Your task to perform on an android device: refresh tabs in the chrome app Image 0: 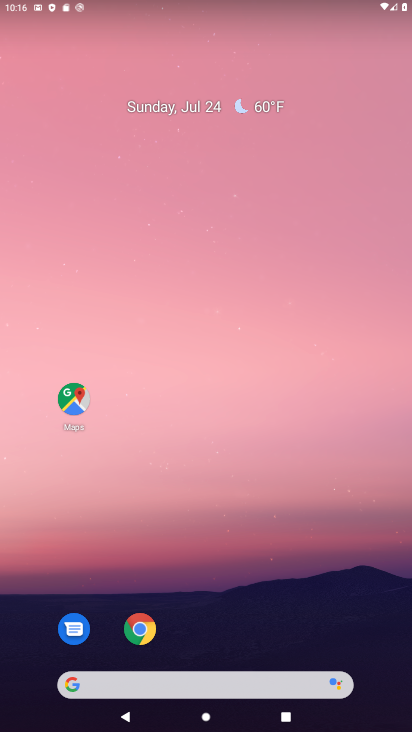
Step 0: drag from (199, 471) to (168, 201)
Your task to perform on an android device: refresh tabs in the chrome app Image 1: 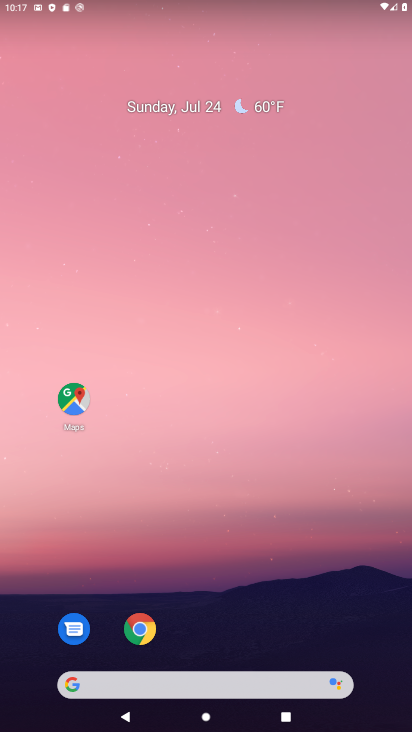
Step 1: drag from (305, 489) to (334, 230)
Your task to perform on an android device: refresh tabs in the chrome app Image 2: 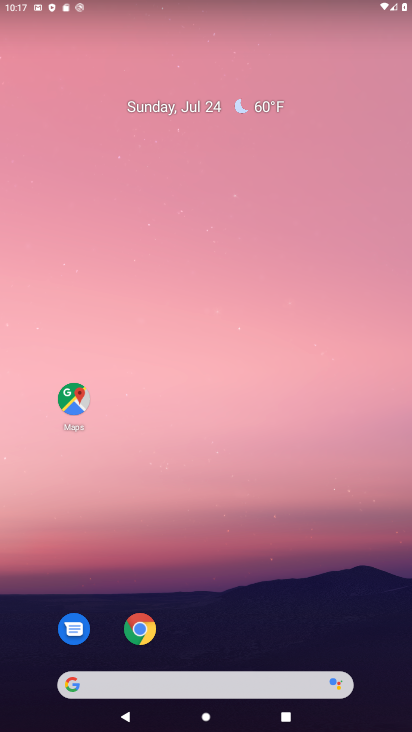
Step 2: drag from (300, 446) to (107, 11)
Your task to perform on an android device: refresh tabs in the chrome app Image 3: 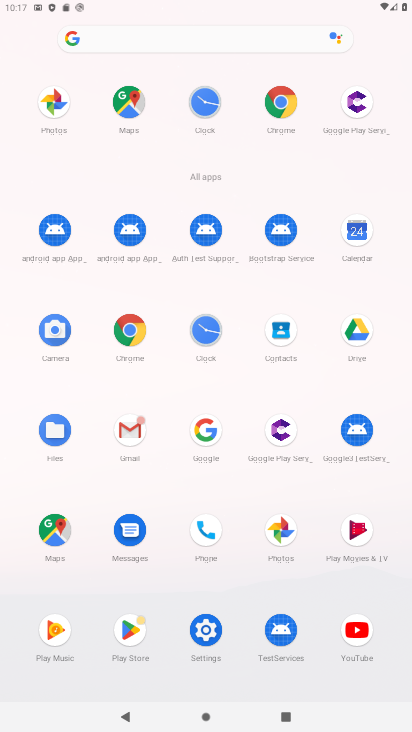
Step 3: drag from (234, 583) to (178, 112)
Your task to perform on an android device: refresh tabs in the chrome app Image 4: 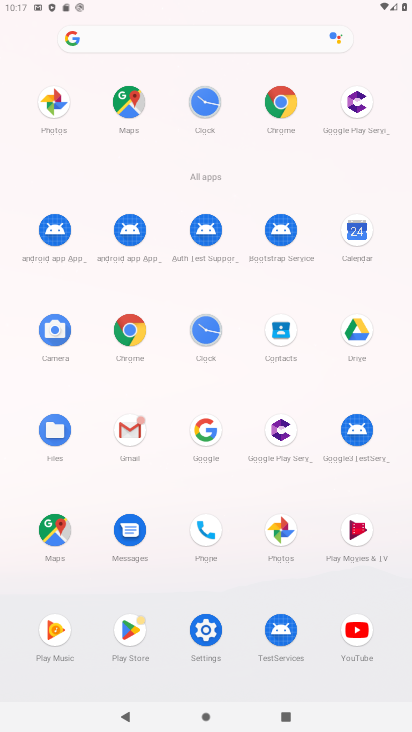
Step 4: click (280, 99)
Your task to perform on an android device: refresh tabs in the chrome app Image 5: 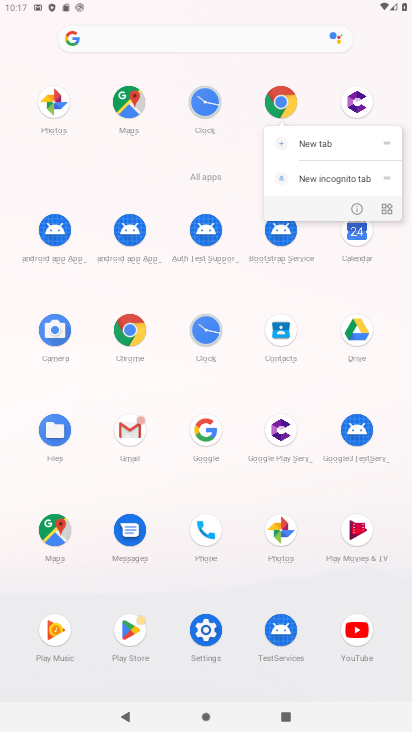
Step 5: click (281, 115)
Your task to perform on an android device: refresh tabs in the chrome app Image 6: 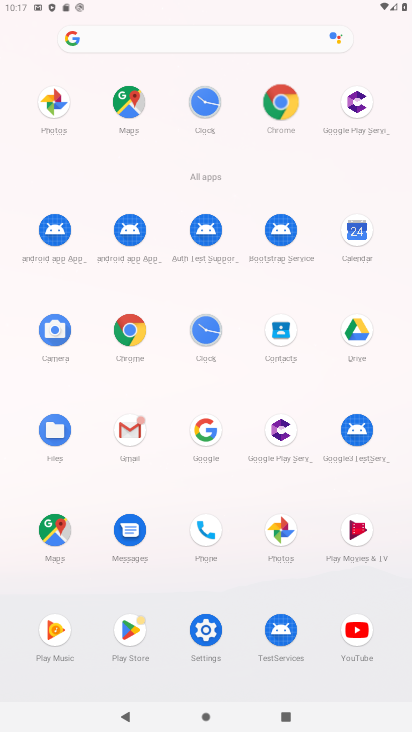
Step 6: click (286, 112)
Your task to perform on an android device: refresh tabs in the chrome app Image 7: 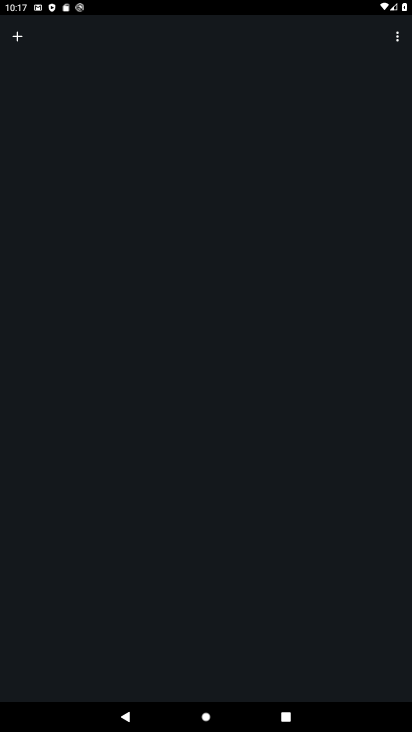
Step 7: click (127, 287)
Your task to perform on an android device: refresh tabs in the chrome app Image 8: 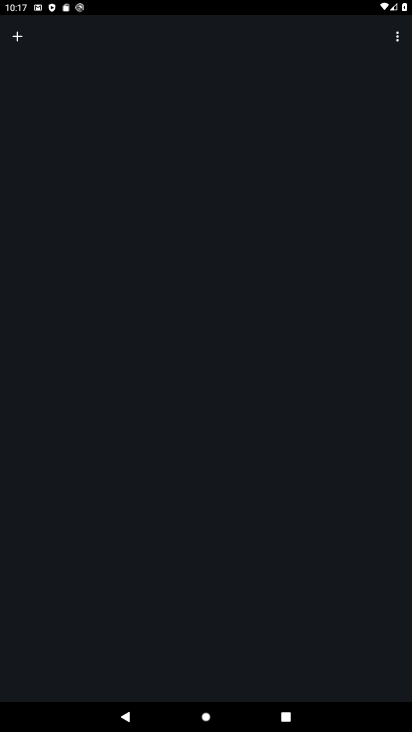
Step 8: click (141, 272)
Your task to perform on an android device: refresh tabs in the chrome app Image 9: 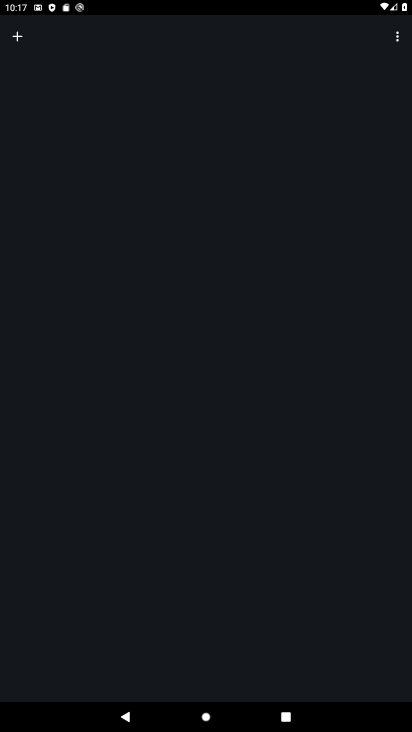
Step 9: click (151, 269)
Your task to perform on an android device: refresh tabs in the chrome app Image 10: 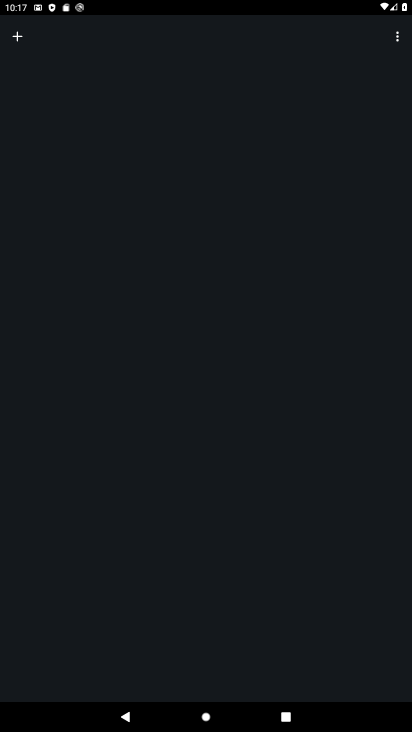
Step 10: press back button
Your task to perform on an android device: refresh tabs in the chrome app Image 11: 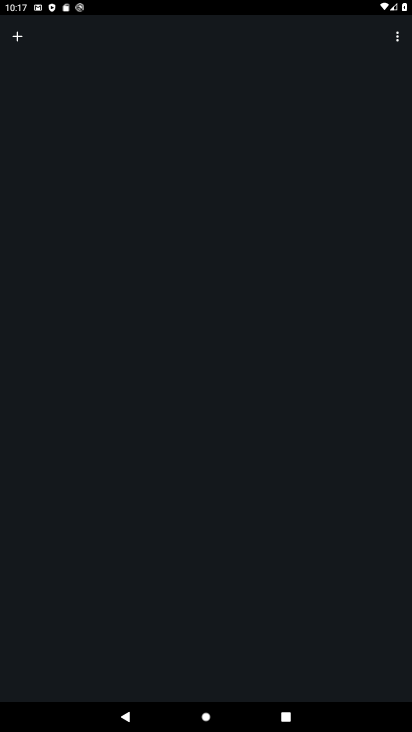
Step 11: press back button
Your task to perform on an android device: refresh tabs in the chrome app Image 12: 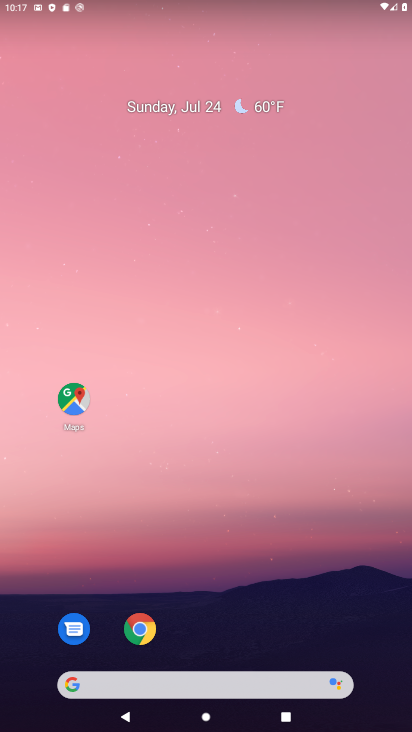
Step 12: drag from (264, 651) to (218, 192)
Your task to perform on an android device: refresh tabs in the chrome app Image 13: 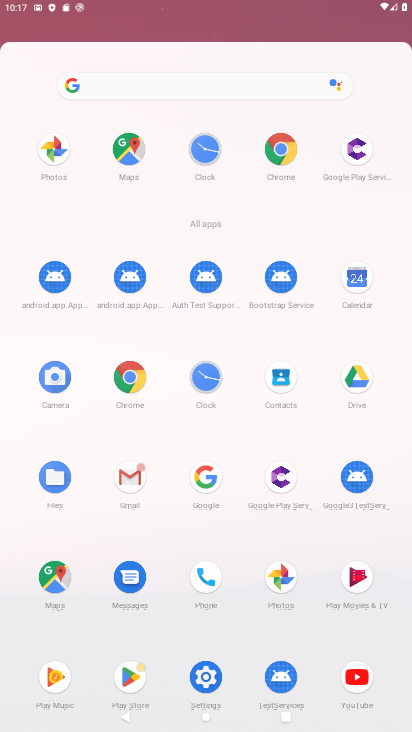
Step 13: drag from (312, 444) to (304, 7)
Your task to perform on an android device: refresh tabs in the chrome app Image 14: 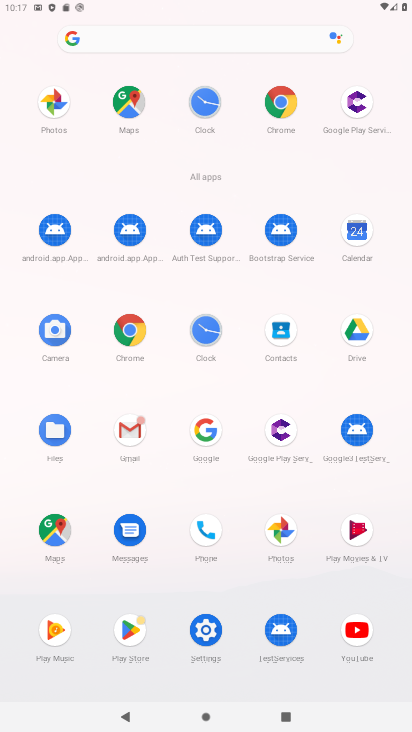
Step 14: click (265, 103)
Your task to perform on an android device: refresh tabs in the chrome app Image 15: 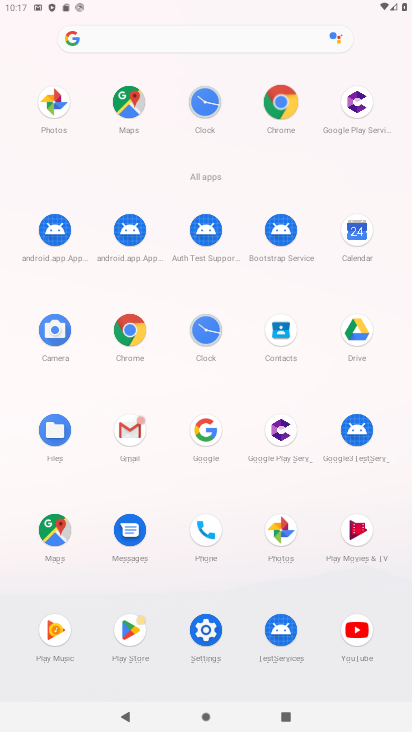
Step 15: click (266, 102)
Your task to perform on an android device: refresh tabs in the chrome app Image 16: 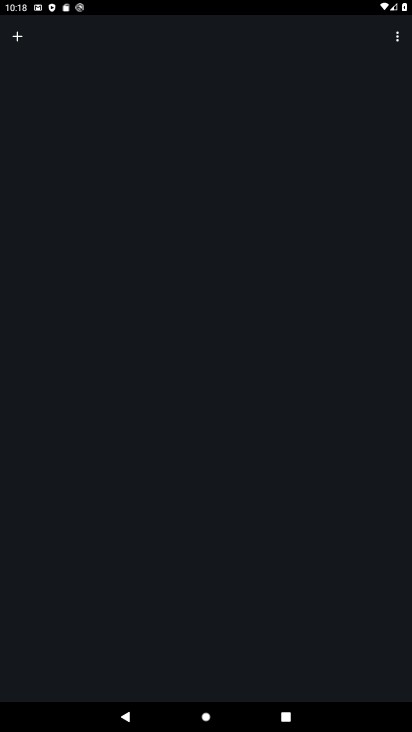
Step 16: drag from (272, 479) to (206, 140)
Your task to perform on an android device: refresh tabs in the chrome app Image 17: 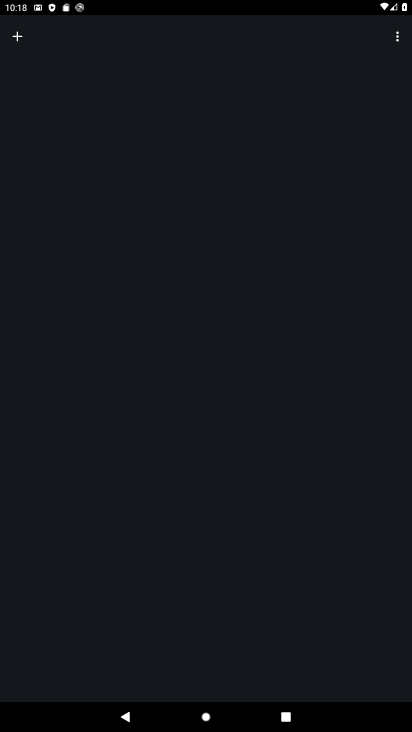
Step 17: click (9, 41)
Your task to perform on an android device: refresh tabs in the chrome app Image 18: 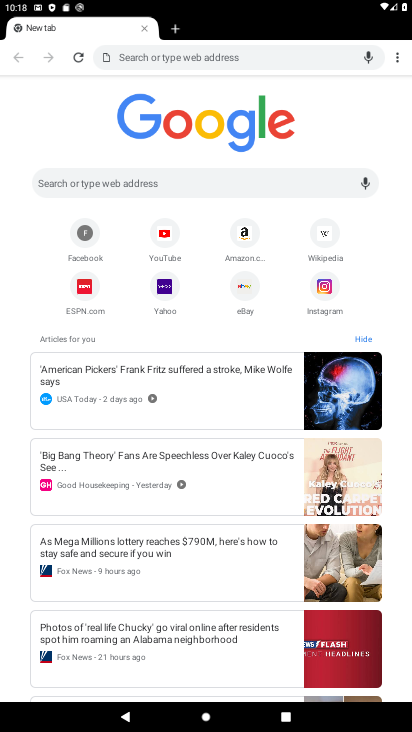
Step 18: click (402, 60)
Your task to perform on an android device: refresh tabs in the chrome app Image 19: 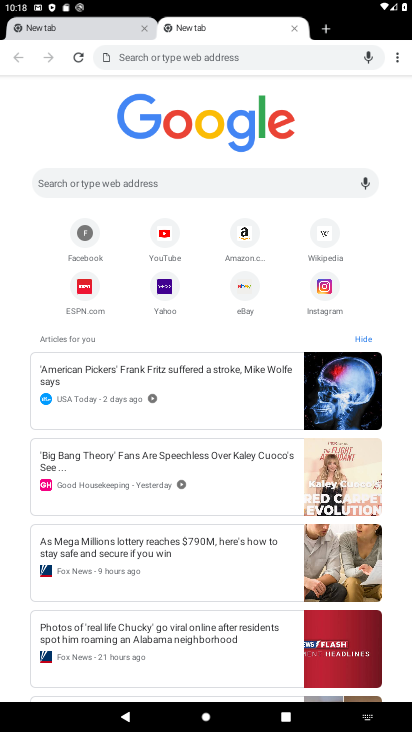
Step 19: drag from (395, 57) to (273, 53)
Your task to perform on an android device: refresh tabs in the chrome app Image 20: 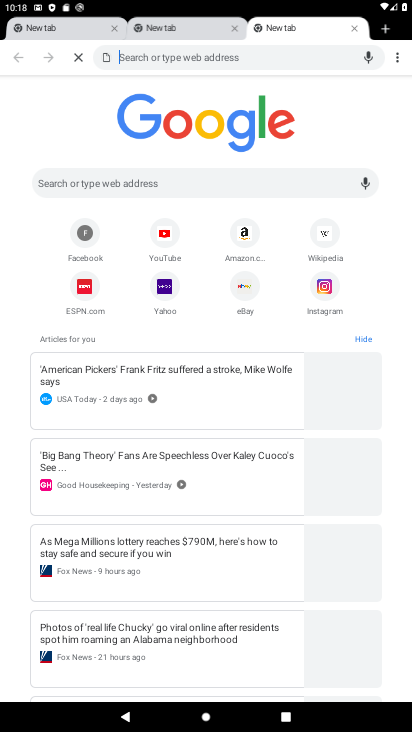
Step 20: click (87, 52)
Your task to perform on an android device: refresh tabs in the chrome app Image 21: 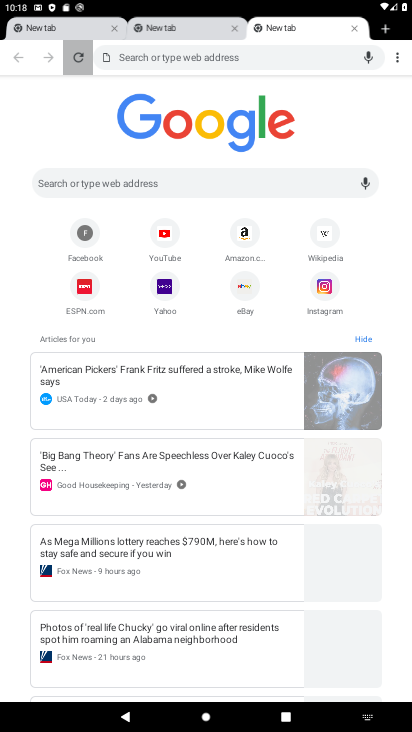
Step 21: click (77, 57)
Your task to perform on an android device: refresh tabs in the chrome app Image 22: 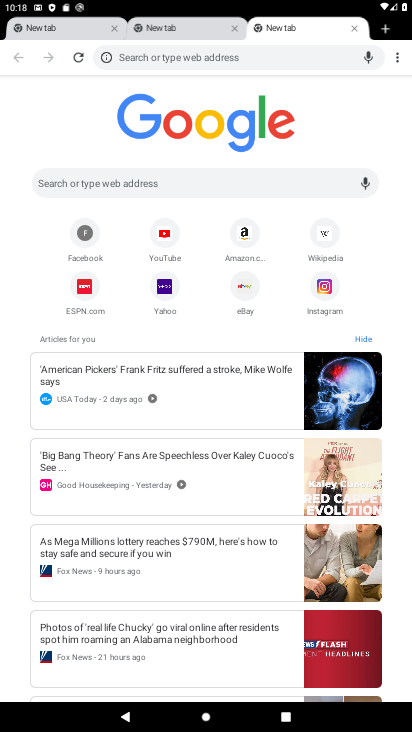
Step 22: task complete